Your task to perform on an android device: Clear all items from cart on amazon. Image 0: 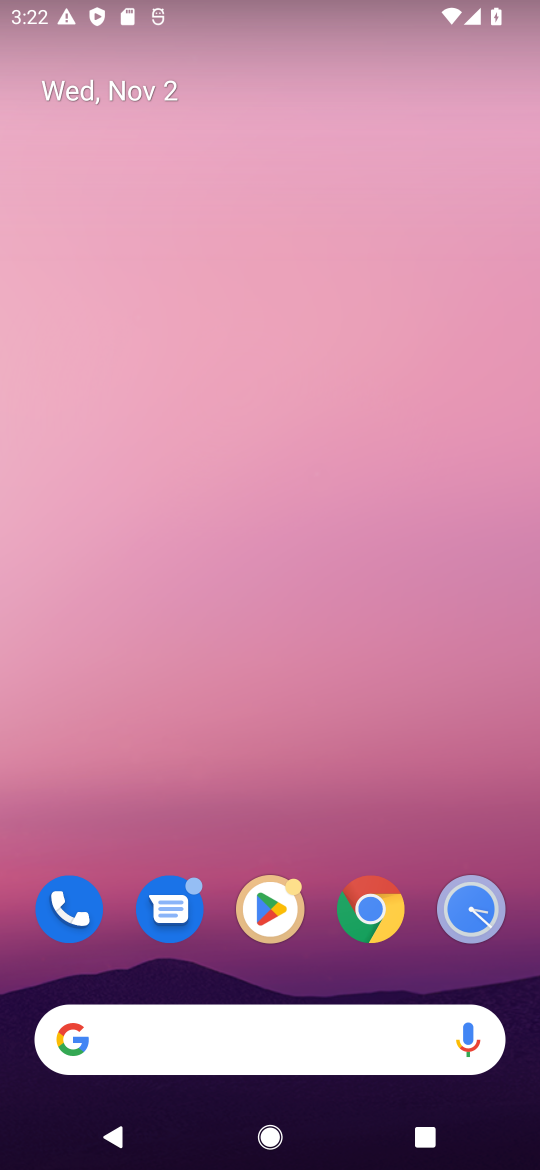
Step 0: click (373, 915)
Your task to perform on an android device: Clear all items from cart on amazon. Image 1: 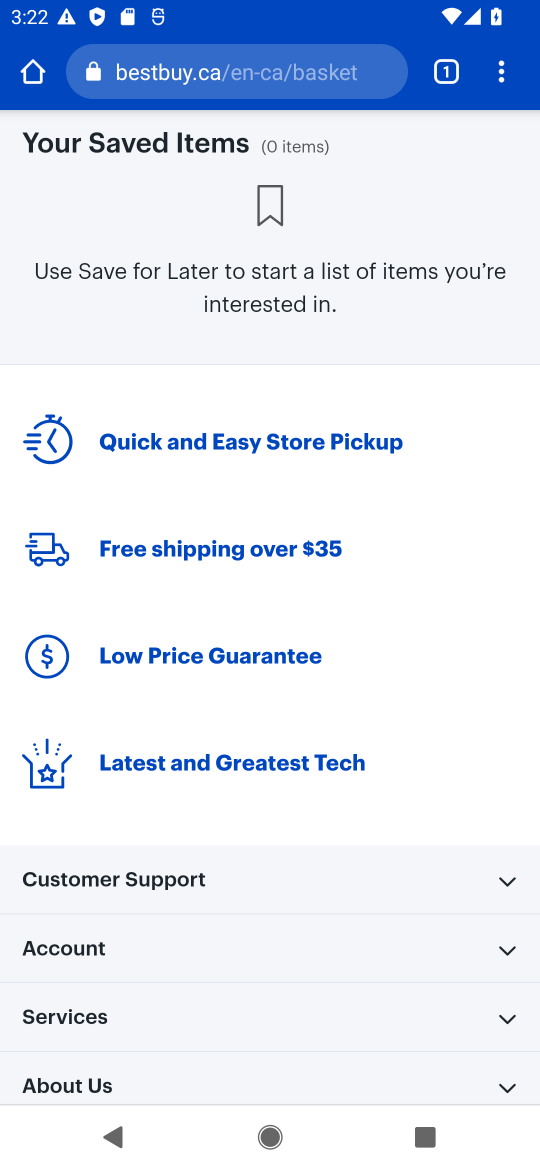
Step 1: drag from (500, 77) to (350, 142)
Your task to perform on an android device: Clear all items from cart on amazon. Image 2: 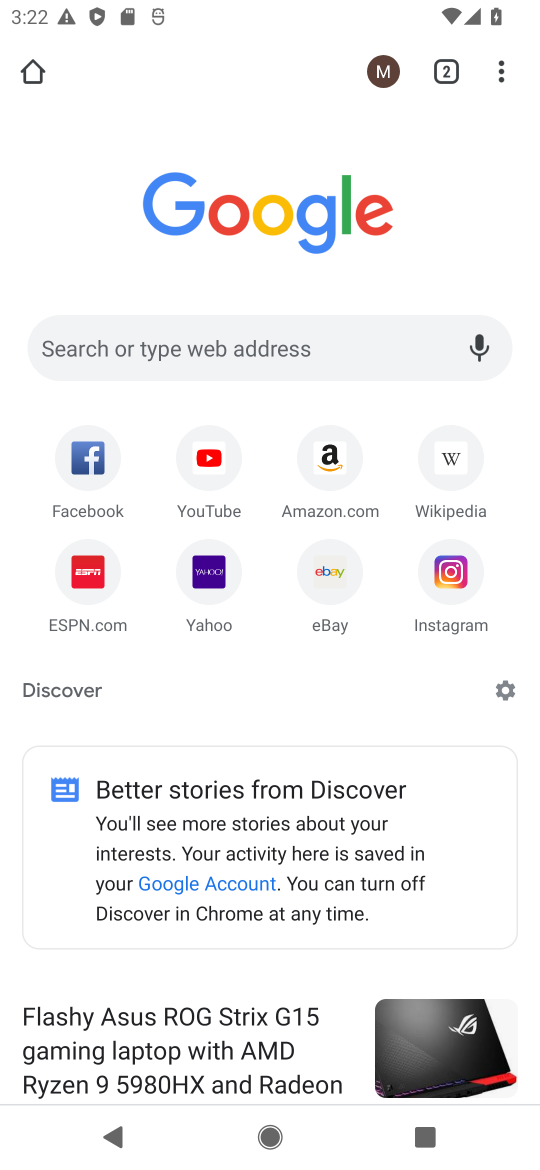
Step 2: click (334, 457)
Your task to perform on an android device: Clear all items from cart on amazon. Image 3: 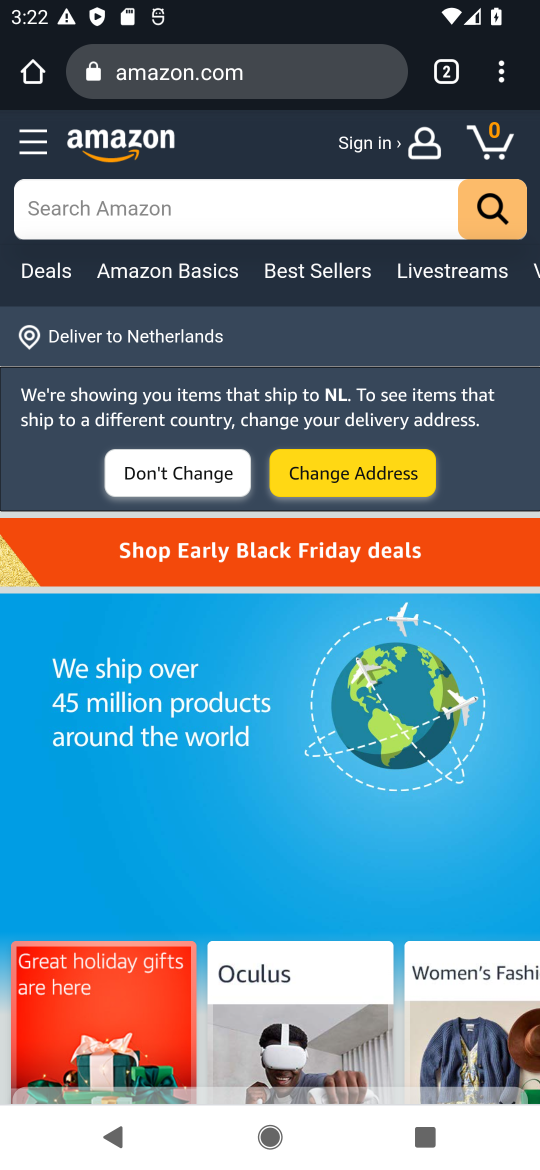
Step 3: click (502, 140)
Your task to perform on an android device: Clear all items from cart on amazon. Image 4: 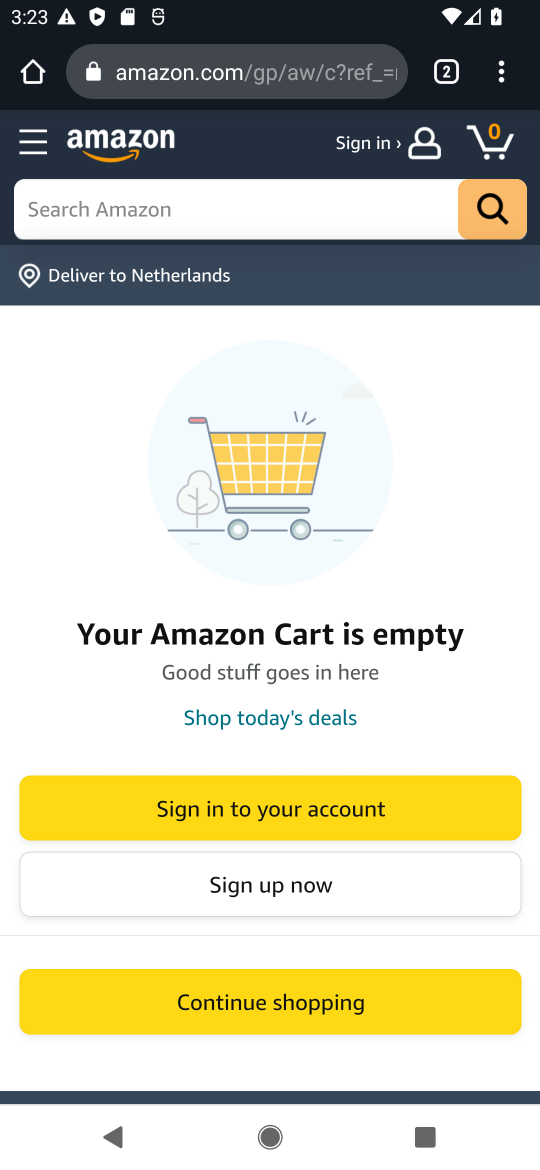
Step 4: task complete